Your task to perform on an android device: Search for pizza restaurants on Maps Image 0: 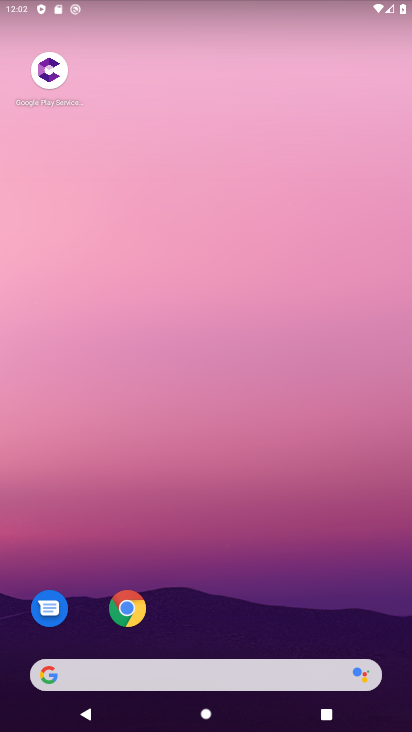
Step 0: drag from (31, 706) to (309, 3)
Your task to perform on an android device: Search for pizza restaurants on Maps Image 1: 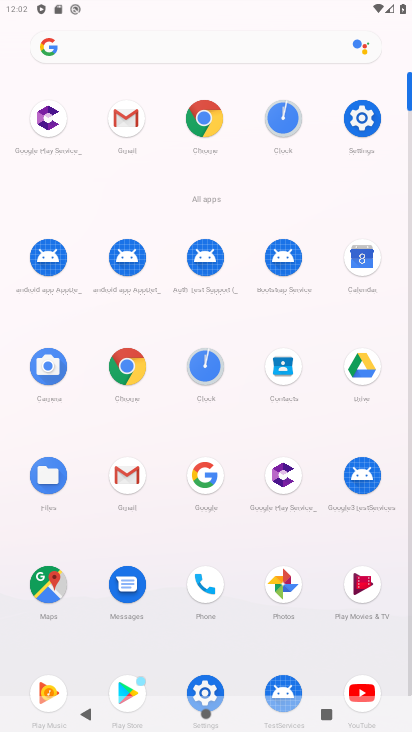
Step 1: click (40, 586)
Your task to perform on an android device: Search for pizza restaurants on Maps Image 2: 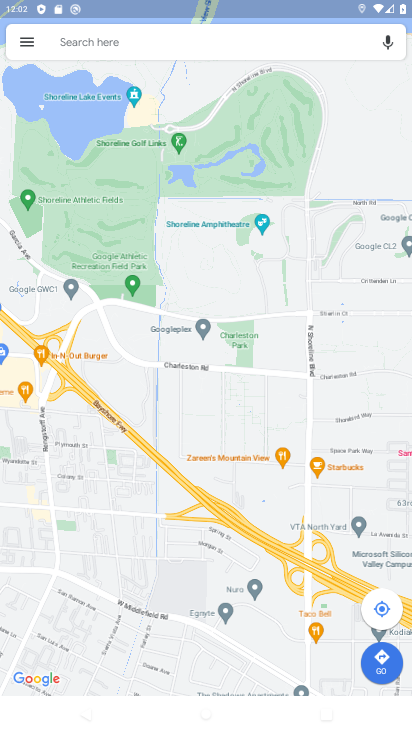
Step 2: click (83, 42)
Your task to perform on an android device: Search for pizza restaurants on Maps Image 3: 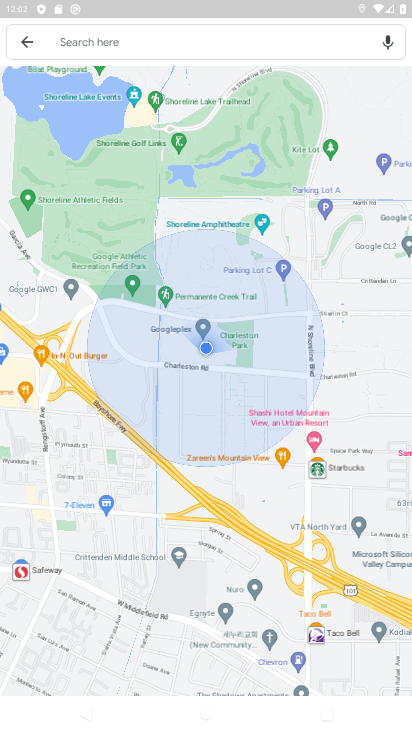
Step 3: click (69, 41)
Your task to perform on an android device: Search for pizza restaurants on Maps Image 4: 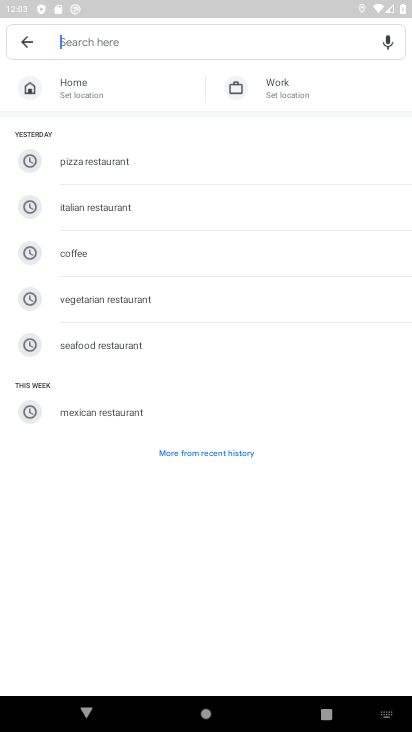
Step 4: type "pizza restaurants"
Your task to perform on an android device: Search for pizza restaurants on Maps Image 5: 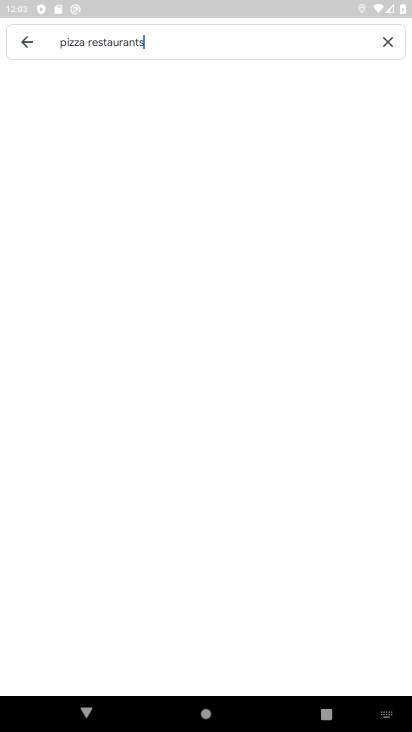
Step 5: type ""
Your task to perform on an android device: Search for pizza restaurants on Maps Image 6: 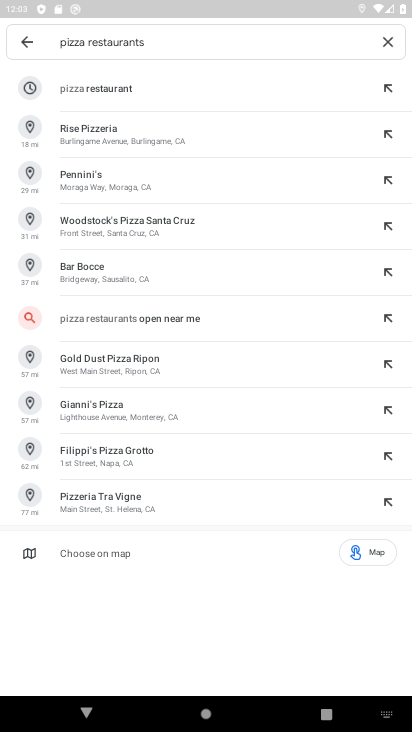
Step 6: click (101, 91)
Your task to perform on an android device: Search for pizza restaurants on Maps Image 7: 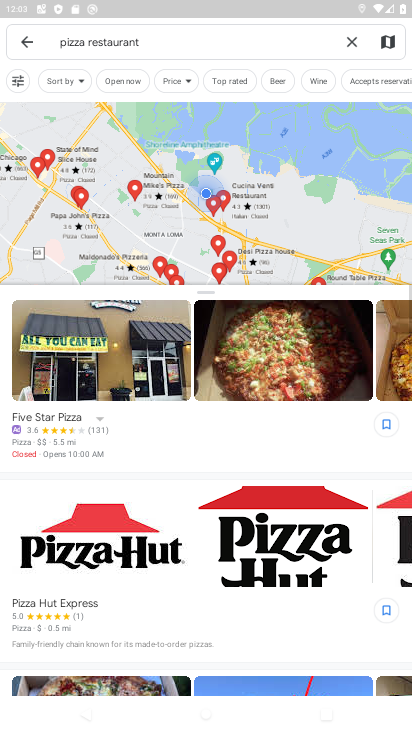
Step 7: task complete